Your task to perform on an android device: turn on wifi Image 0: 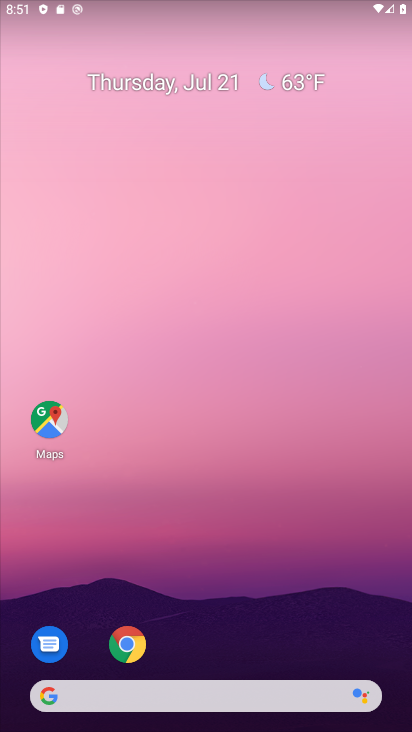
Step 0: press home button
Your task to perform on an android device: turn on wifi Image 1: 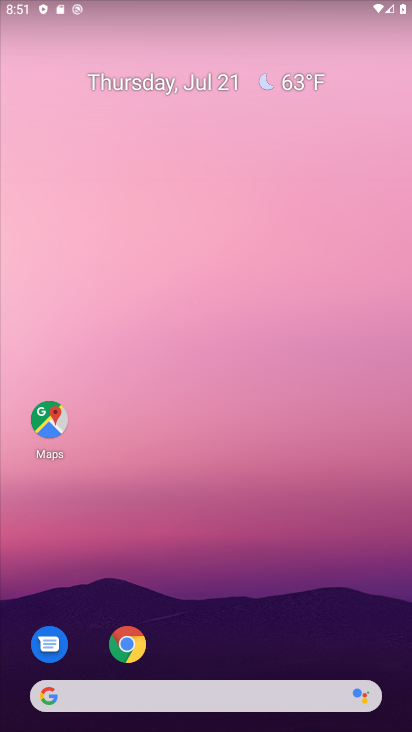
Step 1: task complete